Your task to perform on an android device: Open battery settings Image 0: 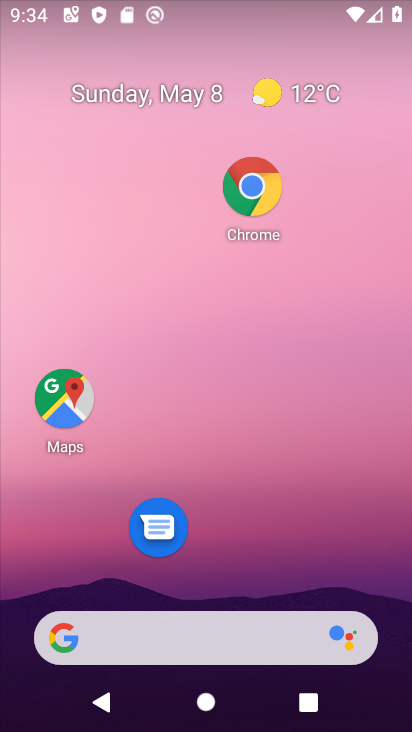
Step 0: drag from (313, 562) to (337, 310)
Your task to perform on an android device: Open battery settings Image 1: 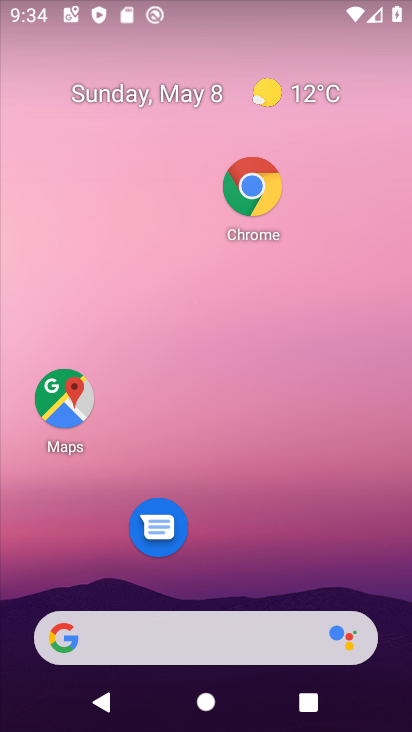
Step 1: drag from (203, 505) to (293, 219)
Your task to perform on an android device: Open battery settings Image 2: 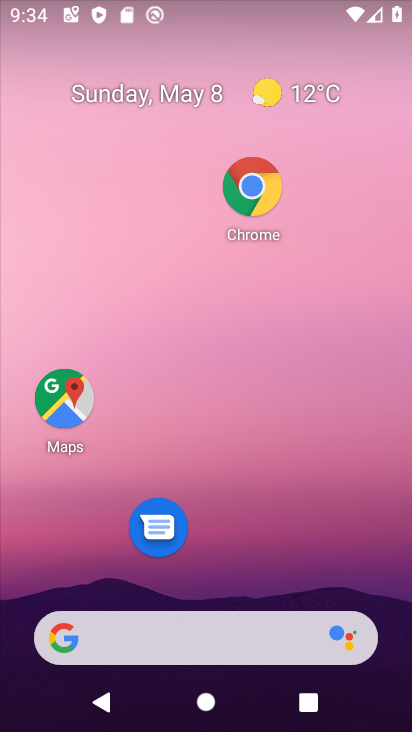
Step 2: drag from (292, 571) to (345, 256)
Your task to perform on an android device: Open battery settings Image 3: 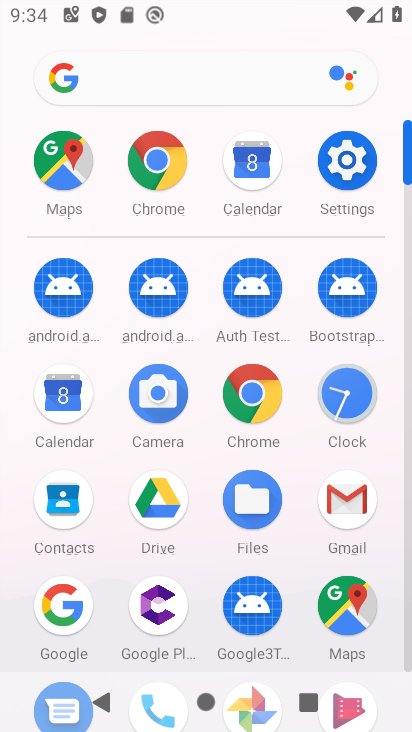
Step 3: click (359, 145)
Your task to perform on an android device: Open battery settings Image 4: 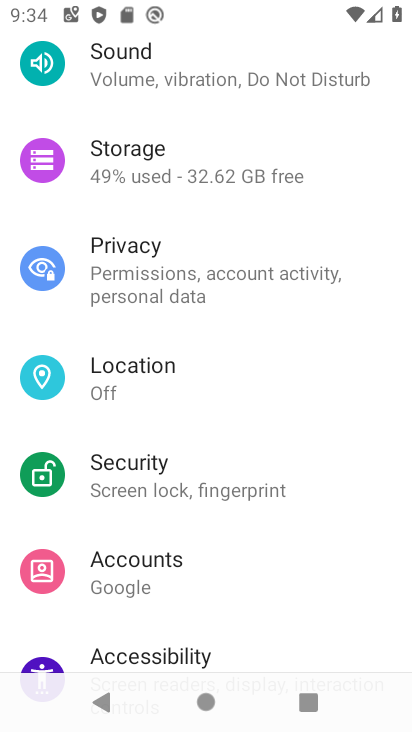
Step 4: drag from (234, 152) to (177, 566)
Your task to perform on an android device: Open battery settings Image 5: 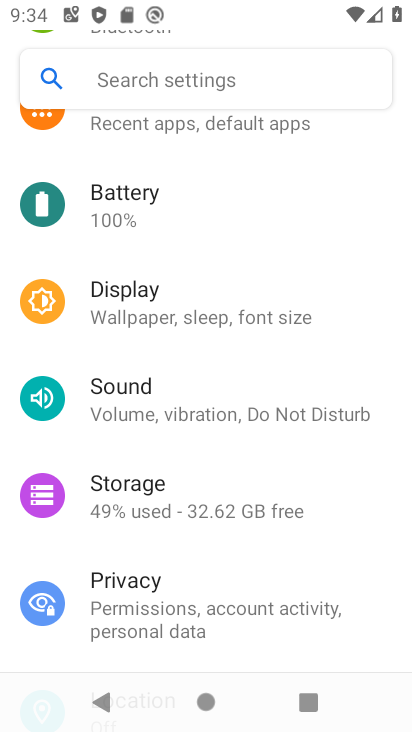
Step 5: click (158, 203)
Your task to perform on an android device: Open battery settings Image 6: 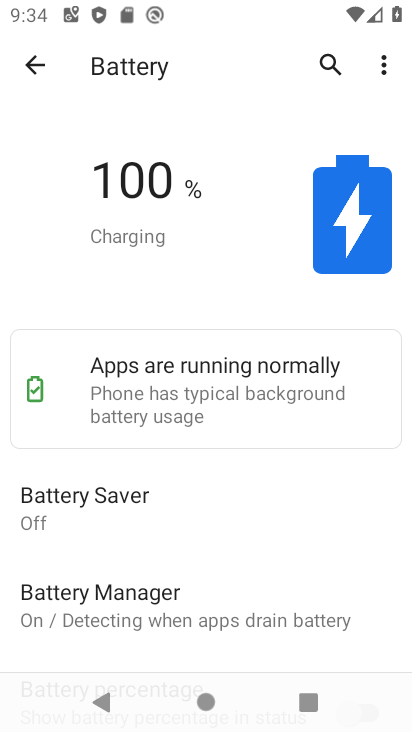
Step 6: task complete